Your task to perform on an android device: change the clock display to show seconds Image 0: 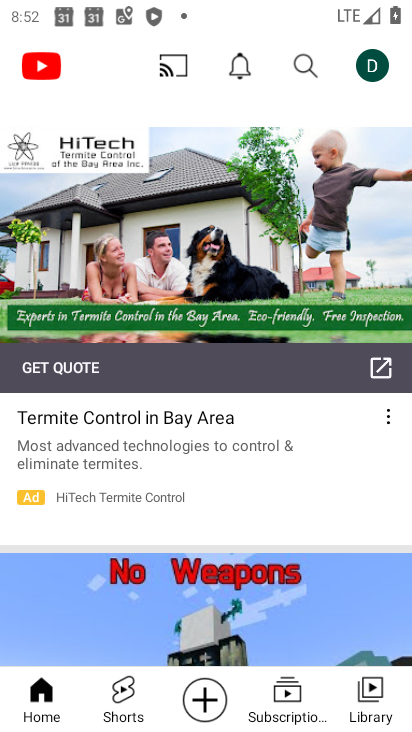
Step 0: press home button
Your task to perform on an android device: change the clock display to show seconds Image 1: 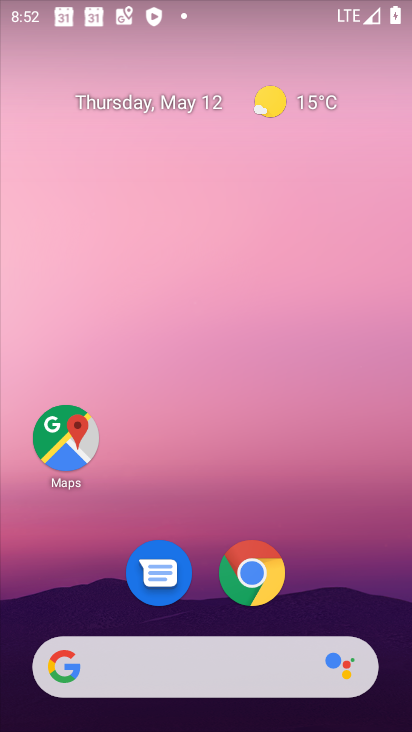
Step 1: drag from (291, 512) to (181, 99)
Your task to perform on an android device: change the clock display to show seconds Image 2: 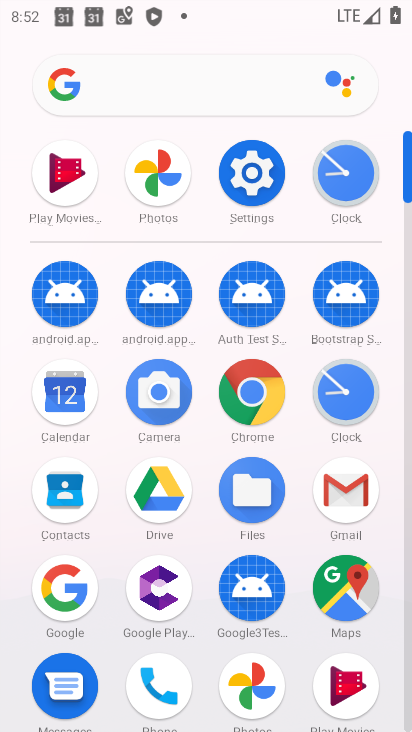
Step 2: click (355, 167)
Your task to perform on an android device: change the clock display to show seconds Image 3: 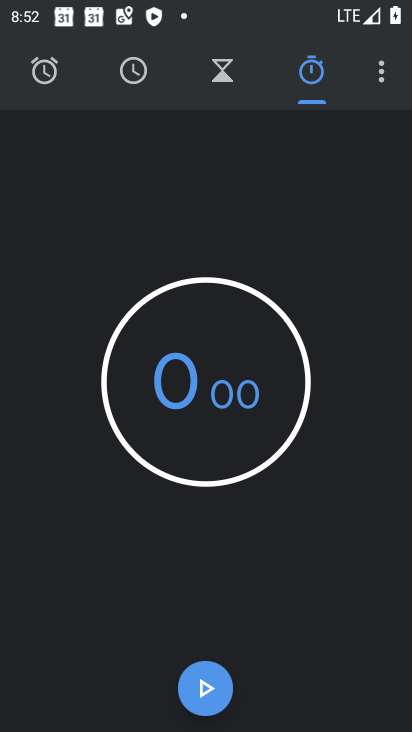
Step 3: click (376, 74)
Your task to perform on an android device: change the clock display to show seconds Image 4: 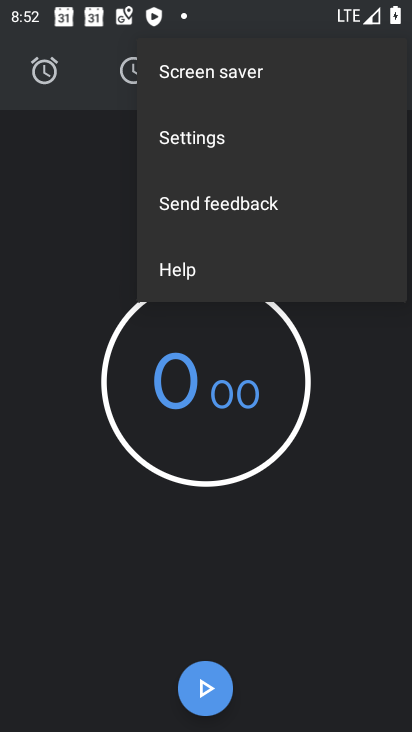
Step 4: click (210, 141)
Your task to perform on an android device: change the clock display to show seconds Image 5: 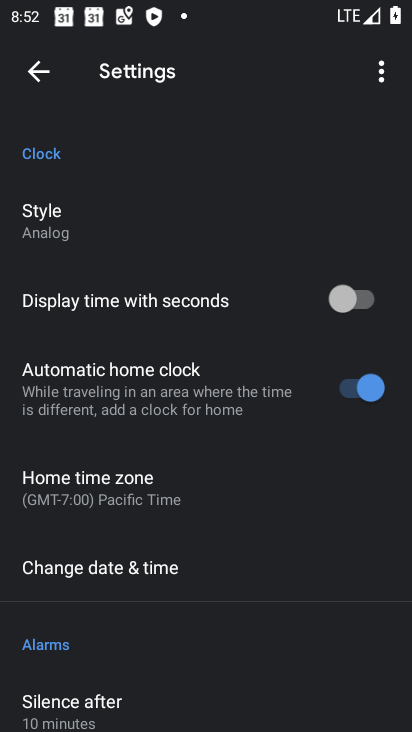
Step 5: click (352, 303)
Your task to perform on an android device: change the clock display to show seconds Image 6: 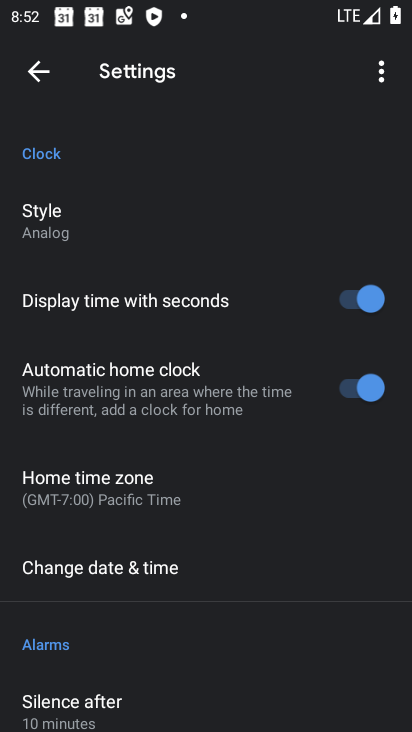
Step 6: task complete